Your task to perform on an android device: turn off improve location accuracy Image 0: 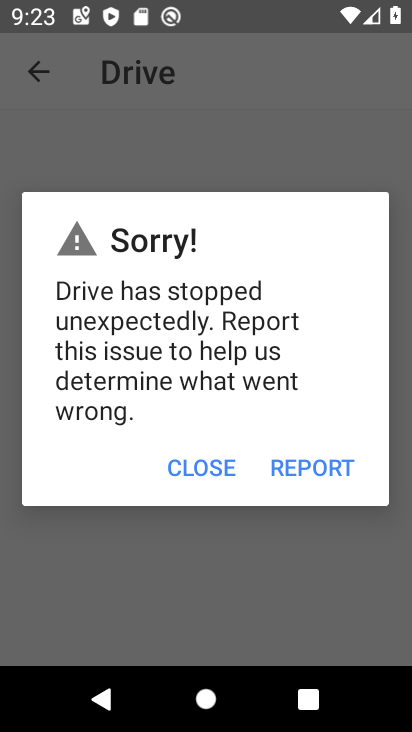
Step 0: press home button
Your task to perform on an android device: turn off improve location accuracy Image 1: 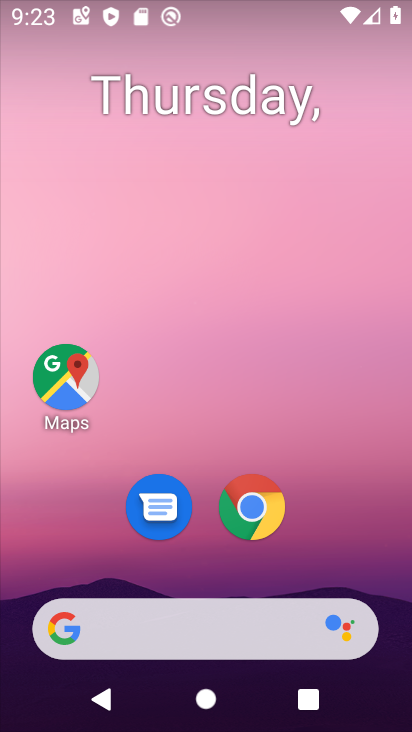
Step 1: drag from (236, 553) to (269, 152)
Your task to perform on an android device: turn off improve location accuracy Image 2: 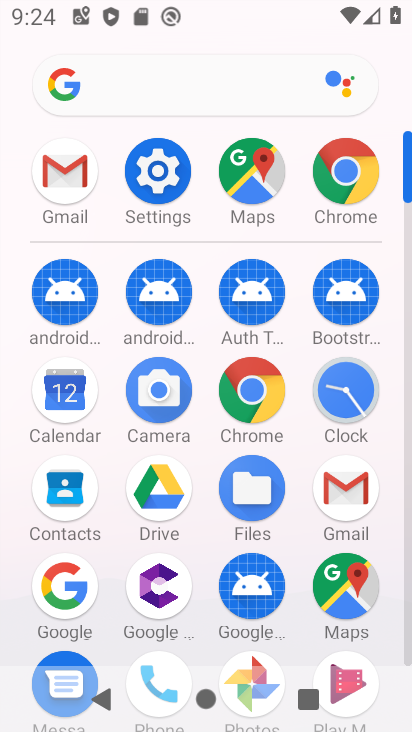
Step 2: click (178, 176)
Your task to perform on an android device: turn off improve location accuracy Image 3: 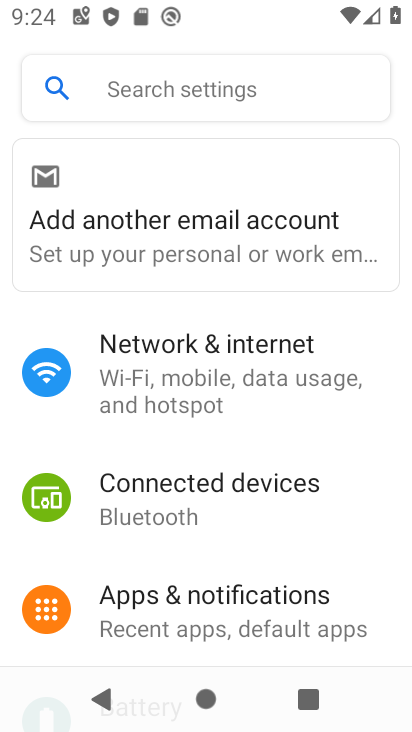
Step 3: drag from (185, 501) to (243, 275)
Your task to perform on an android device: turn off improve location accuracy Image 4: 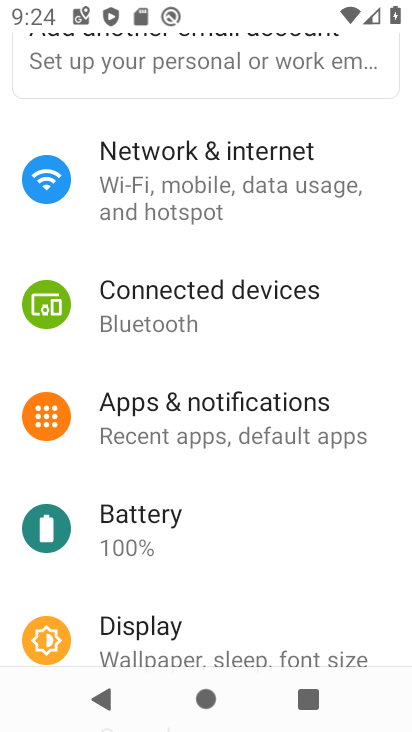
Step 4: drag from (213, 548) to (266, 182)
Your task to perform on an android device: turn off improve location accuracy Image 5: 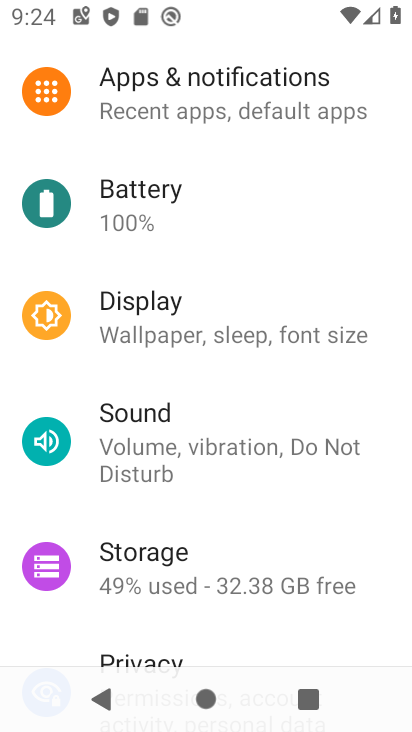
Step 5: drag from (156, 614) to (202, 325)
Your task to perform on an android device: turn off improve location accuracy Image 6: 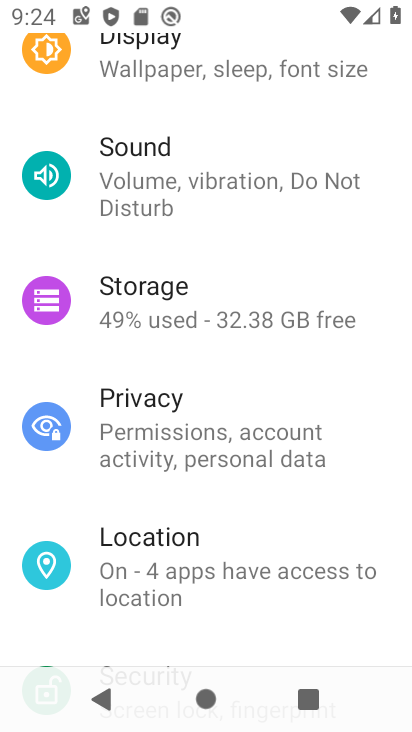
Step 6: click (170, 542)
Your task to perform on an android device: turn off improve location accuracy Image 7: 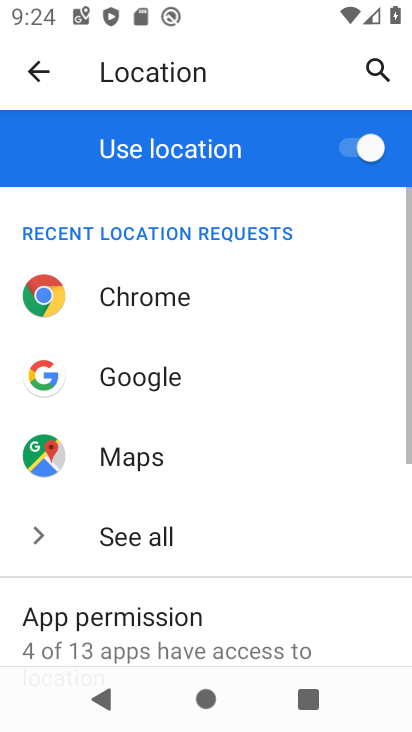
Step 7: drag from (230, 495) to (278, 77)
Your task to perform on an android device: turn off improve location accuracy Image 8: 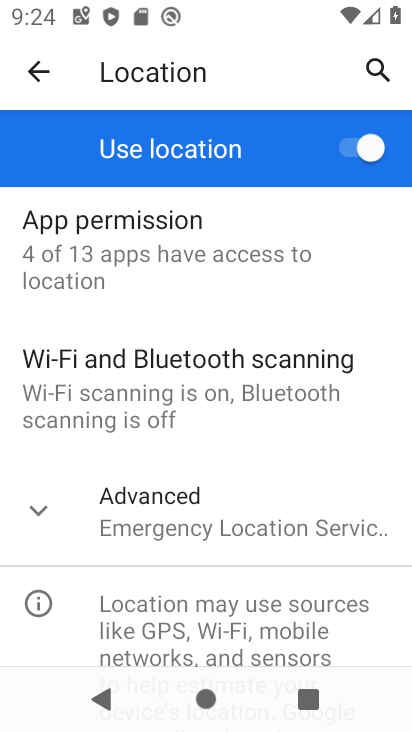
Step 8: click (136, 531)
Your task to perform on an android device: turn off improve location accuracy Image 9: 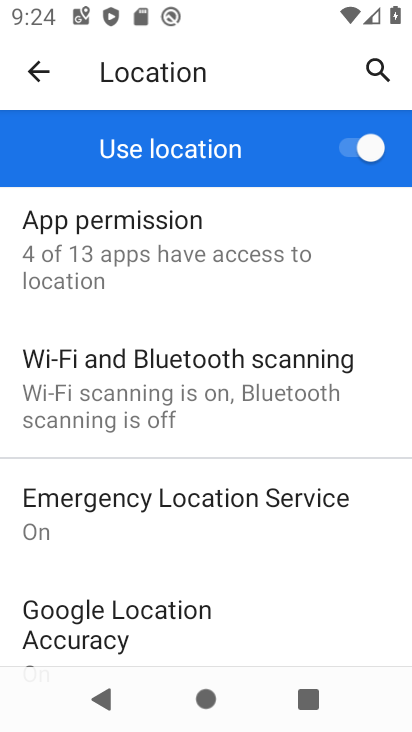
Step 9: drag from (157, 595) to (195, 333)
Your task to perform on an android device: turn off improve location accuracy Image 10: 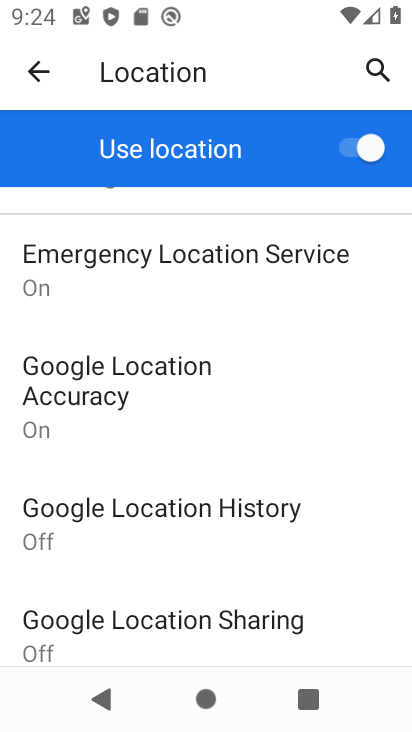
Step 10: click (118, 413)
Your task to perform on an android device: turn off improve location accuracy Image 11: 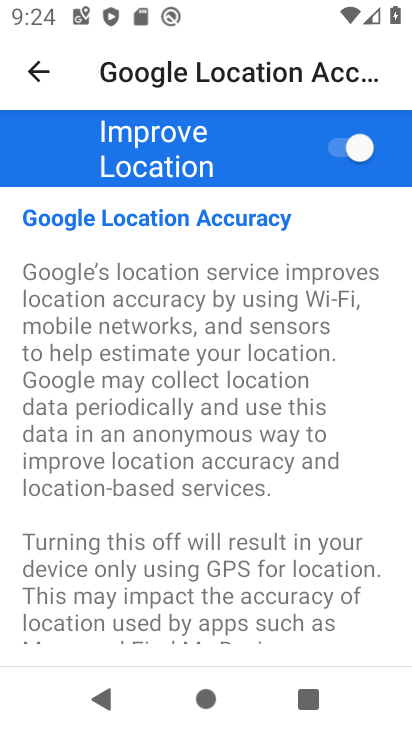
Step 11: click (336, 146)
Your task to perform on an android device: turn off improve location accuracy Image 12: 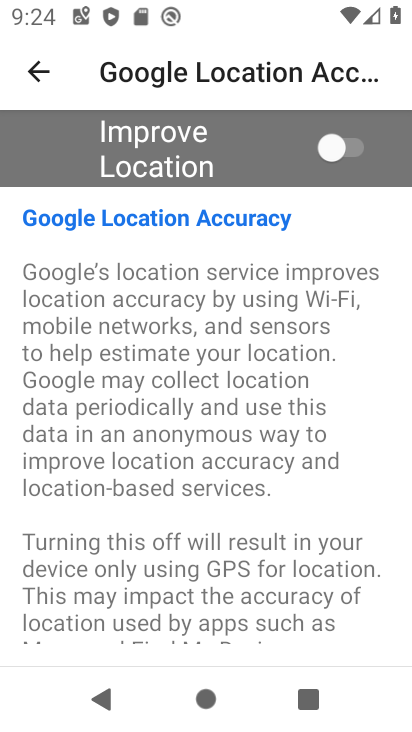
Step 12: task complete